Your task to perform on an android device: Open eBay Image 0: 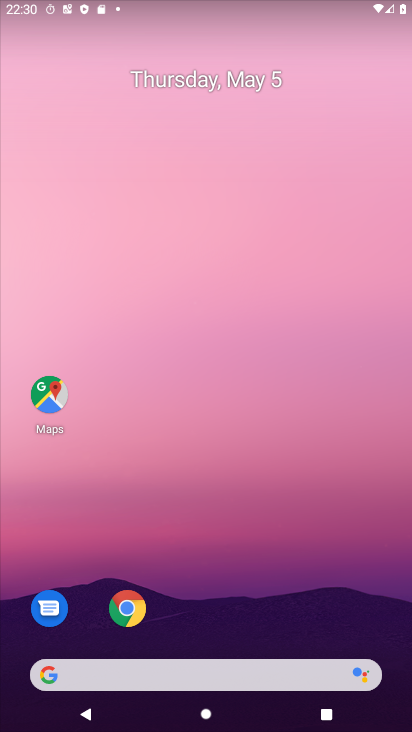
Step 0: drag from (346, 646) to (326, 35)
Your task to perform on an android device: Open eBay Image 1: 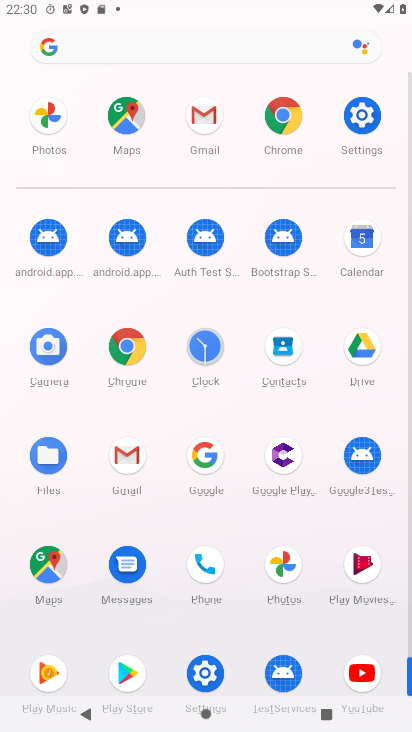
Step 1: click (138, 343)
Your task to perform on an android device: Open eBay Image 2: 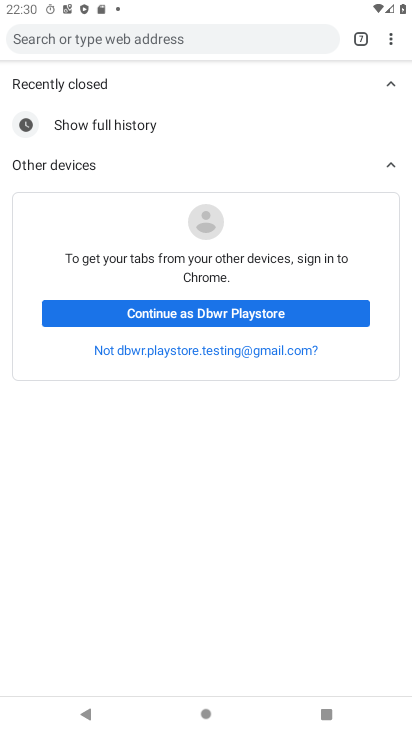
Step 2: click (278, 41)
Your task to perform on an android device: Open eBay Image 3: 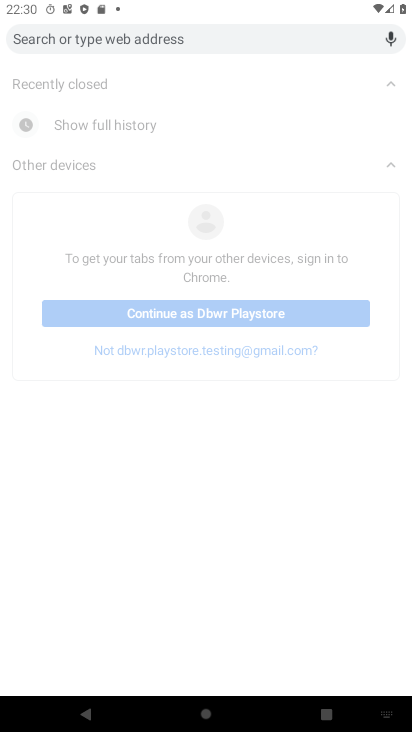
Step 3: click (265, 31)
Your task to perform on an android device: Open eBay Image 4: 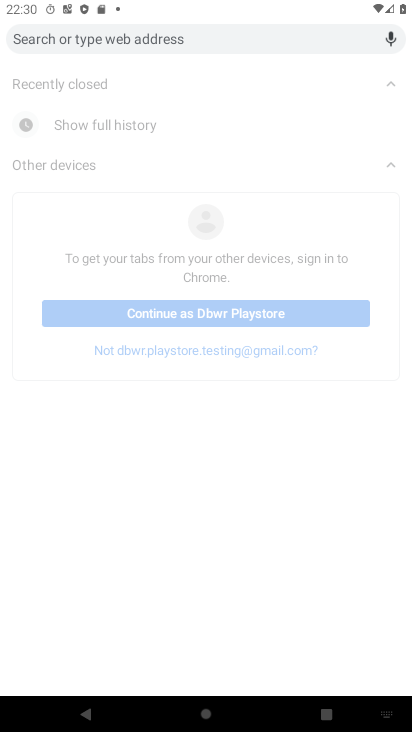
Step 4: type "ebay"
Your task to perform on an android device: Open eBay Image 5: 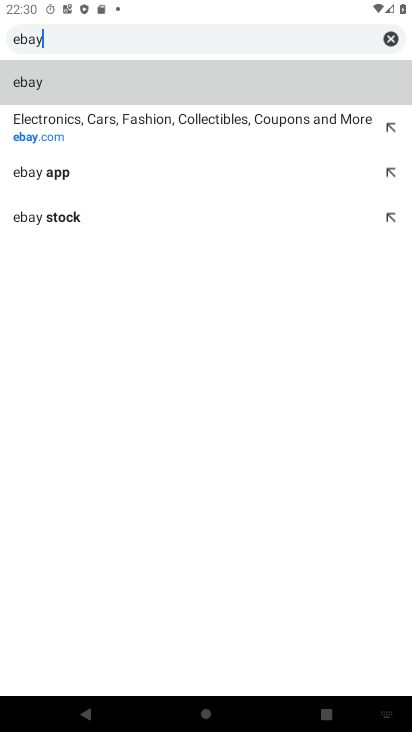
Step 5: click (209, 127)
Your task to perform on an android device: Open eBay Image 6: 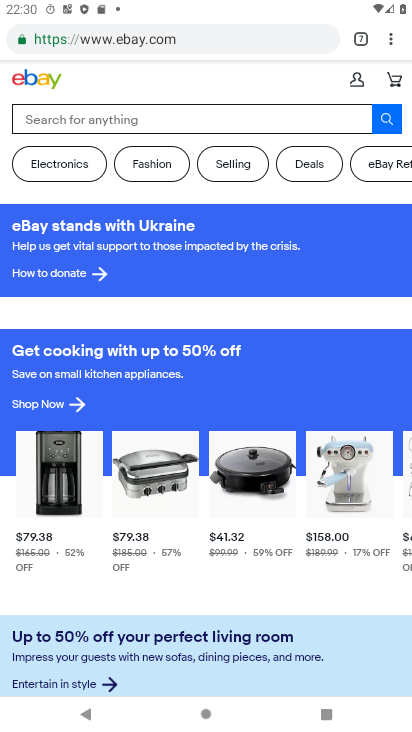
Step 6: task complete